Your task to perform on an android device: Do I have any events tomorrow? Image 0: 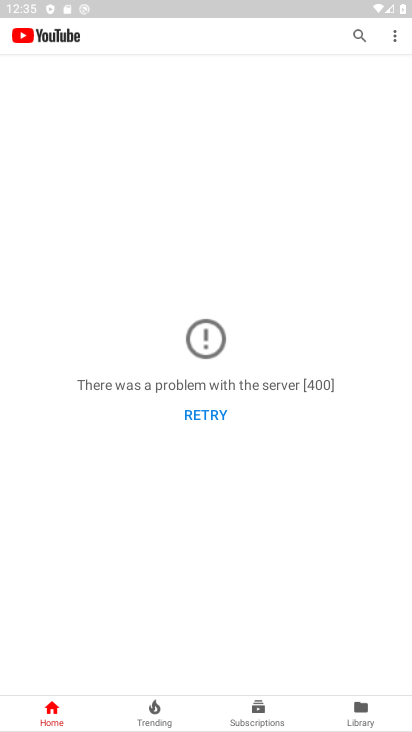
Step 0: press home button
Your task to perform on an android device: Do I have any events tomorrow? Image 1: 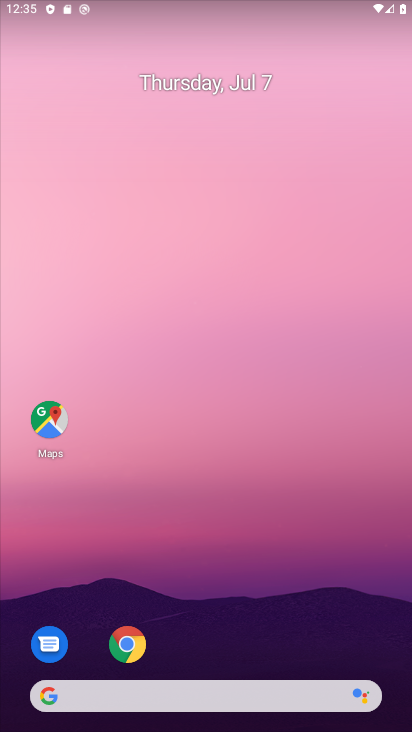
Step 1: drag from (231, 645) to (179, 170)
Your task to perform on an android device: Do I have any events tomorrow? Image 2: 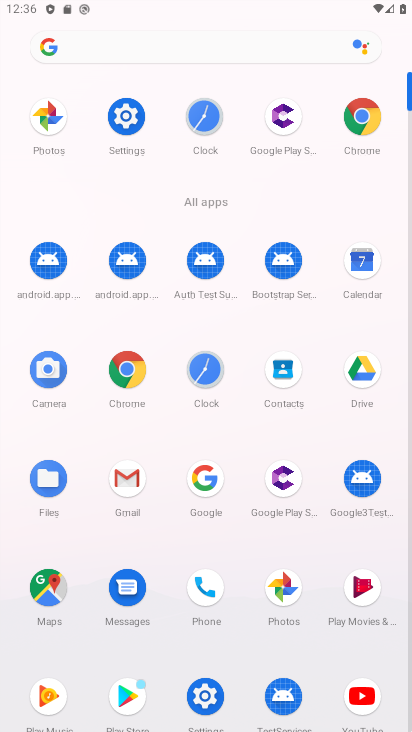
Step 2: click (366, 268)
Your task to perform on an android device: Do I have any events tomorrow? Image 3: 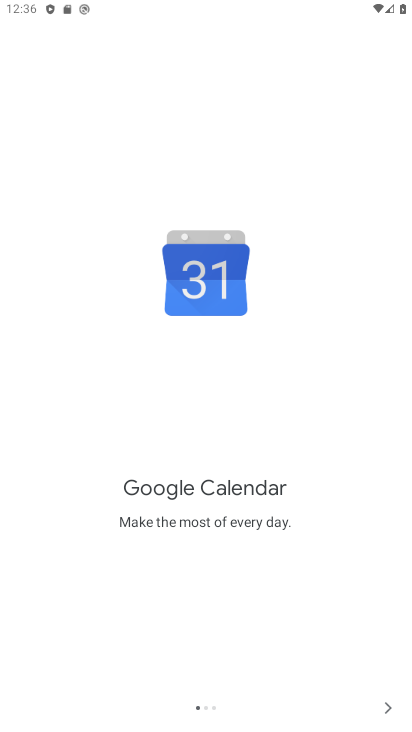
Step 3: click (387, 709)
Your task to perform on an android device: Do I have any events tomorrow? Image 4: 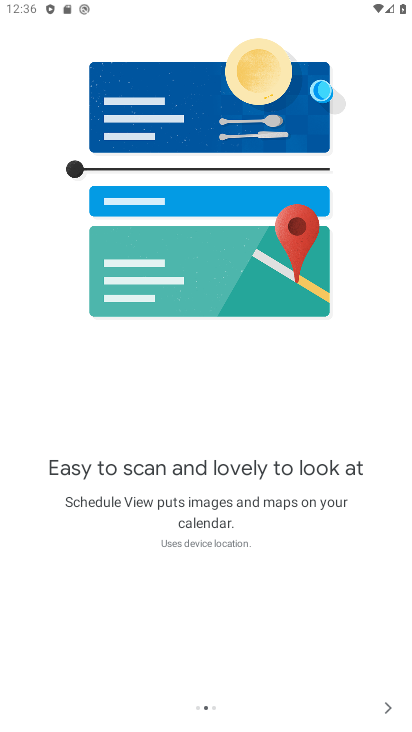
Step 4: click (387, 710)
Your task to perform on an android device: Do I have any events tomorrow? Image 5: 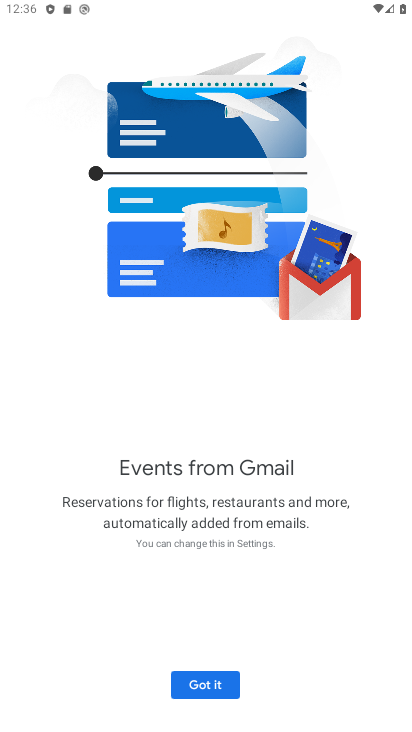
Step 5: click (199, 683)
Your task to perform on an android device: Do I have any events tomorrow? Image 6: 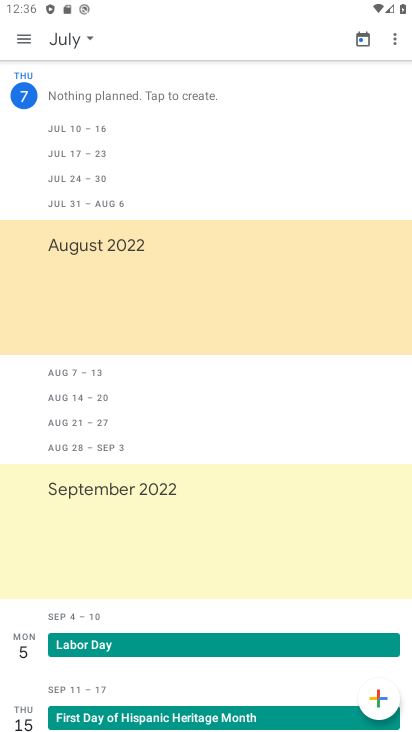
Step 6: click (21, 41)
Your task to perform on an android device: Do I have any events tomorrow? Image 7: 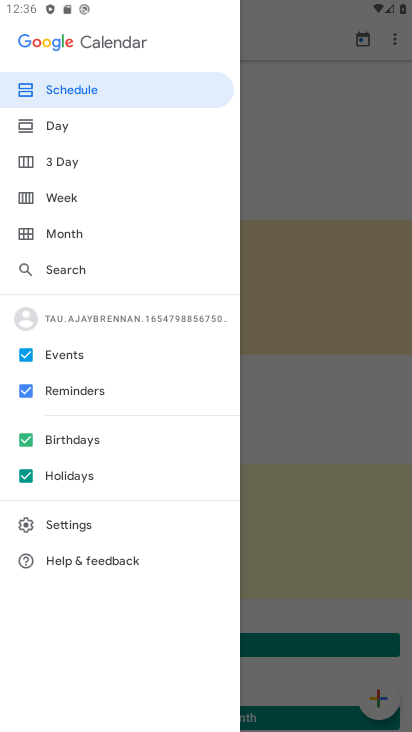
Step 7: click (28, 477)
Your task to perform on an android device: Do I have any events tomorrow? Image 8: 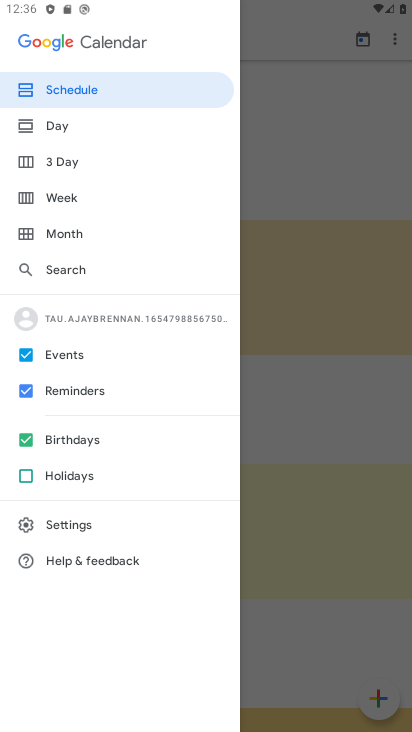
Step 8: click (28, 441)
Your task to perform on an android device: Do I have any events tomorrow? Image 9: 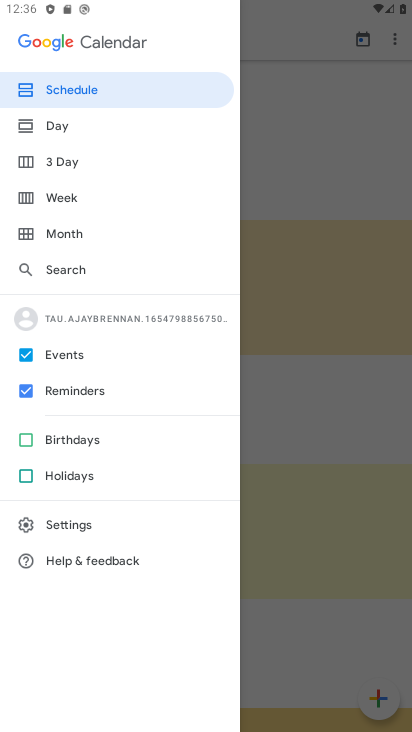
Step 9: click (21, 386)
Your task to perform on an android device: Do I have any events tomorrow? Image 10: 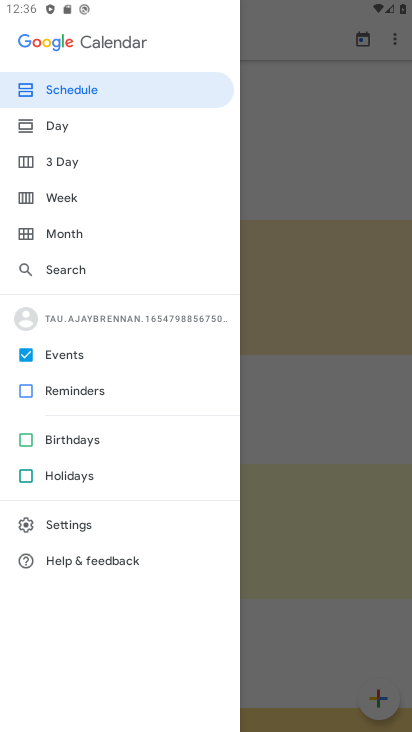
Step 10: click (74, 117)
Your task to perform on an android device: Do I have any events tomorrow? Image 11: 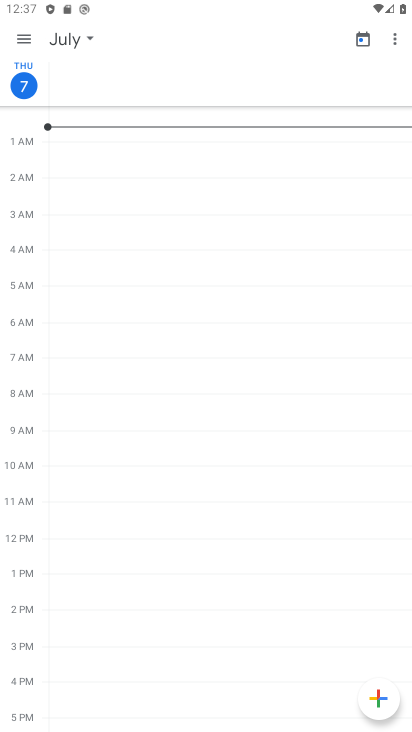
Step 11: task complete